Your task to perform on an android device: turn on data saver in the chrome app Image 0: 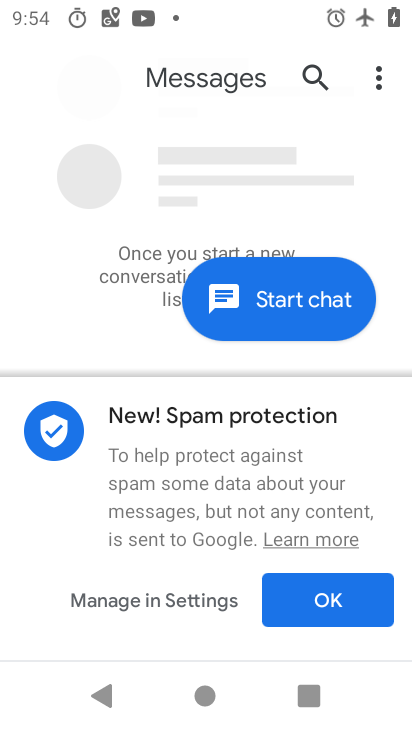
Step 0: press home button
Your task to perform on an android device: turn on data saver in the chrome app Image 1: 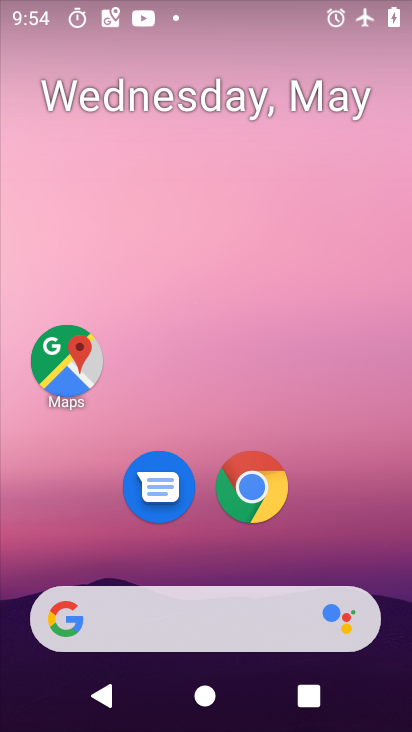
Step 1: click (257, 489)
Your task to perform on an android device: turn on data saver in the chrome app Image 2: 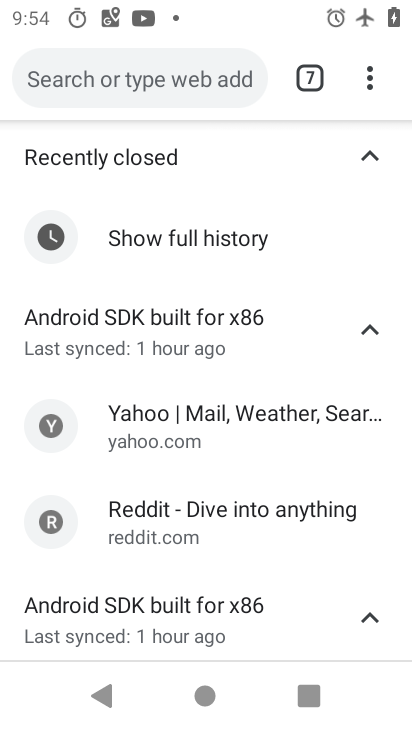
Step 2: drag from (367, 75) to (90, 562)
Your task to perform on an android device: turn on data saver in the chrome app Image 3: 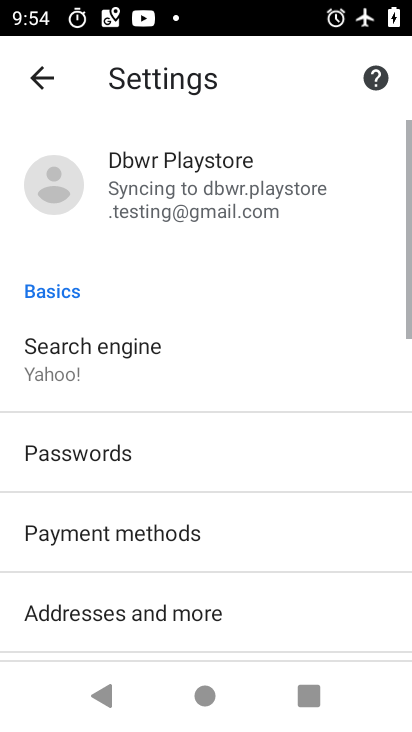
Step 3: drag from (103, 567) to (166, 300)
Your task to perform on an android device: turn on data saver in the chrome app Image 4: 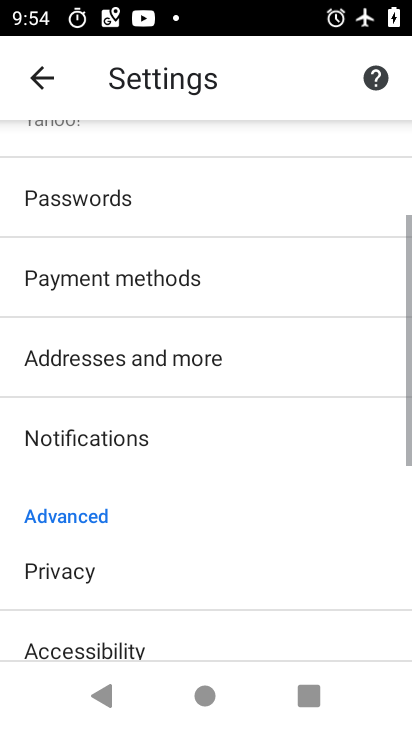
Step 4: drag from (167, 532) to (188, 298)
Your task to perform on an android device: turn on data saver in the chrome app Image 5: 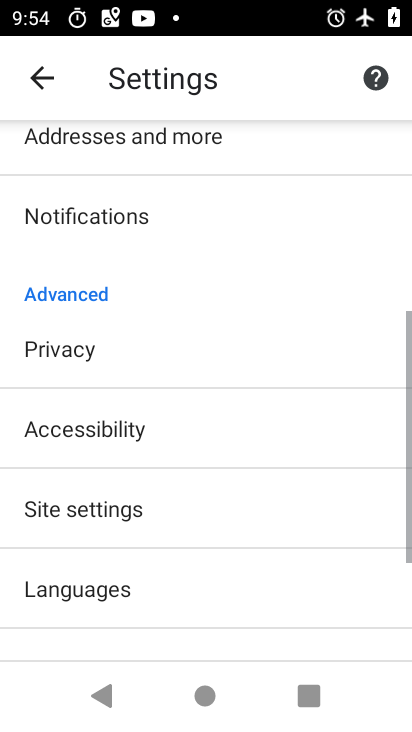
Step 5: drag from (190, 518) to (197, 305)
Your task to perform on an android device: turn on data saver in the chrome app Image 6: 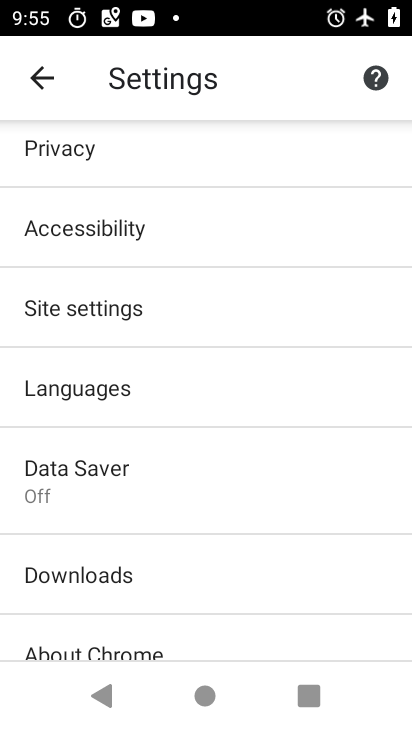
Step 6: click (99, 456)
Your task to perform on an android device: turn on data saver in the chrome app Image 7: 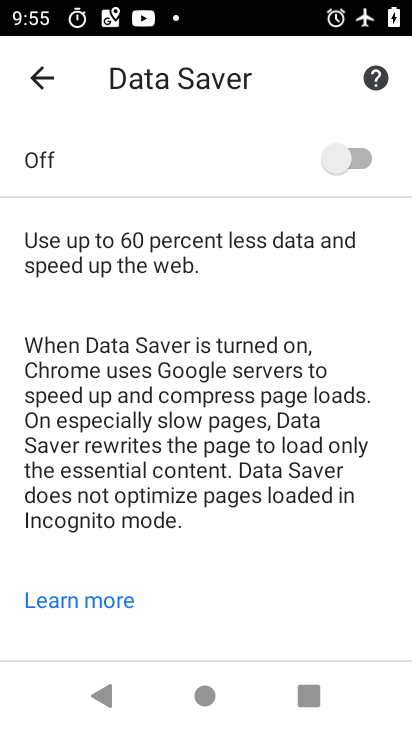
Step 7: click (364, 152)
Your task to perform on an android device: turn on data saver in the chrome app Image 8: 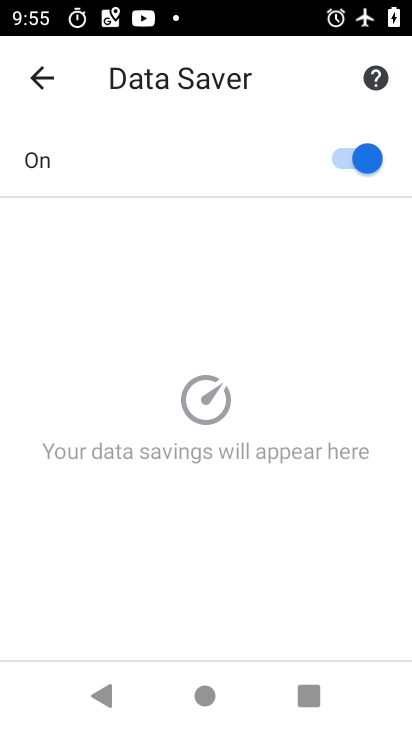
Step 8: task complete